Your task to perform on an android device: move a message to another label in the gmail app Image 0: 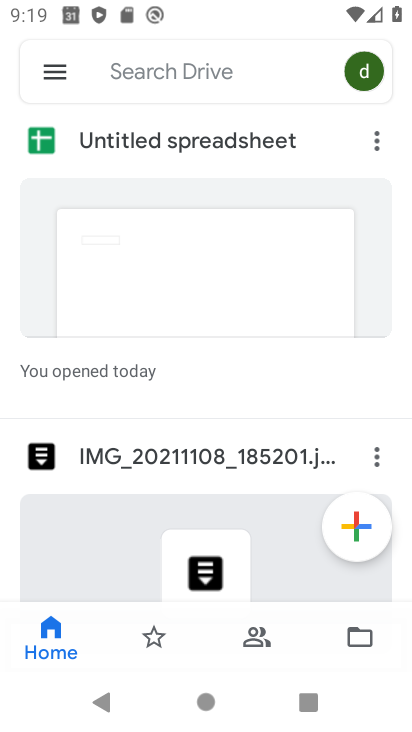
Step 0: press home button
Your task to perform on an android device: move a message to another label in the gmail app Image 1: 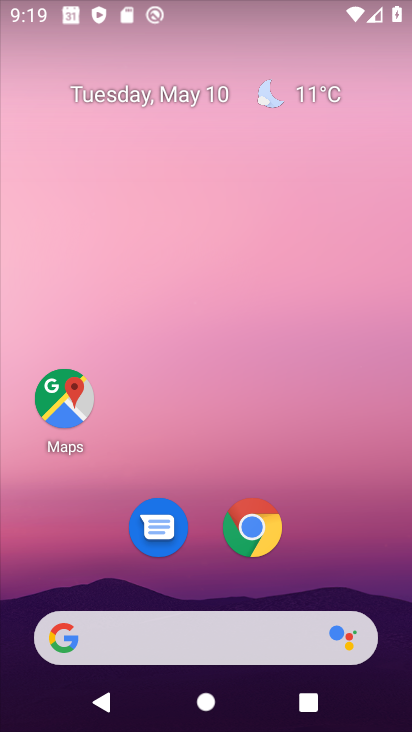
Step 1: drag from (364, 513) to (314, 202)
Your task to perform on an android device: move a message to another label in the gmail app Image 2: 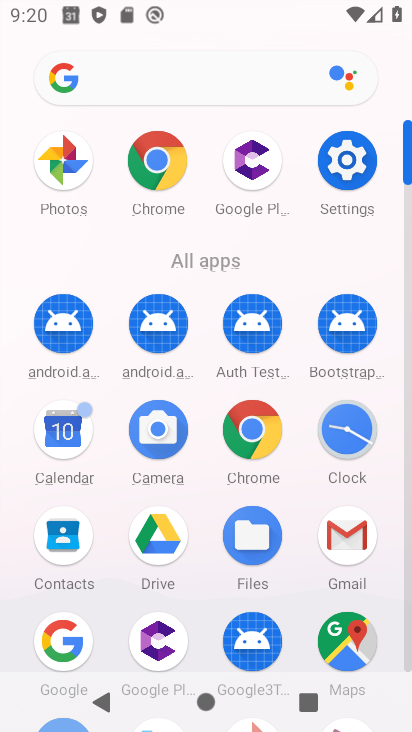
Step 2: click (342, 543)
Your task to perform on an android device: move a message to another label in the gmail app Image 3: 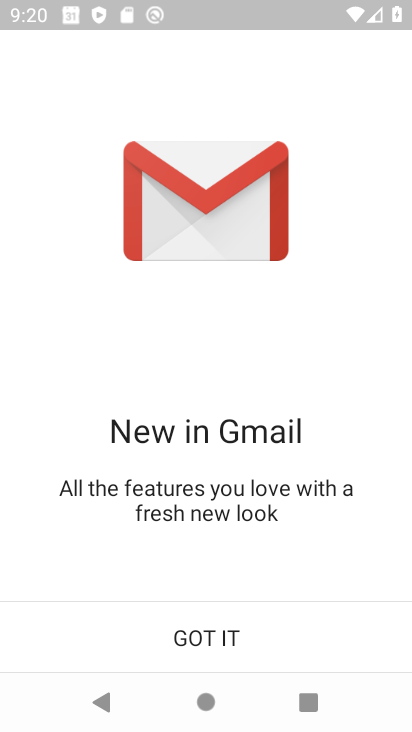
Step 3: click (218, 627)
Your task to perform on an android device: move a message to another label in the gmail app Image 4: 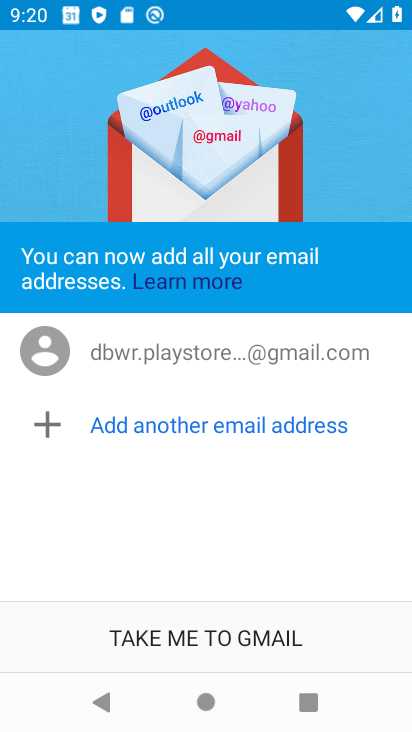
Step 4: click (206, 637)
Your task to perform on an android device: move a message to another label in the gmail app Image 5: 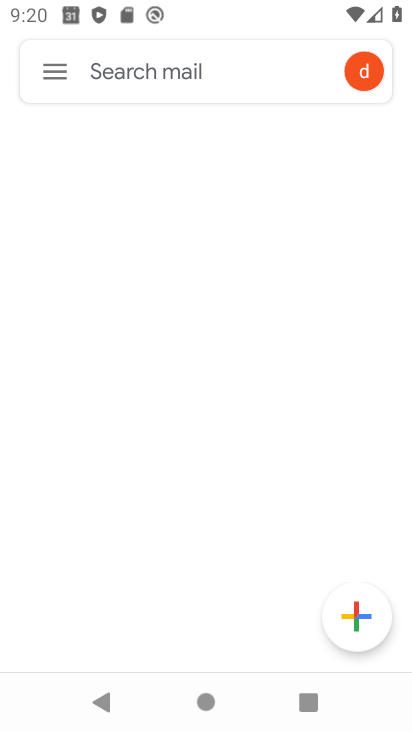
Step 5: click (62, 87)
Your task to perform on an android device: move a message to another label in the gmail app Image 6: 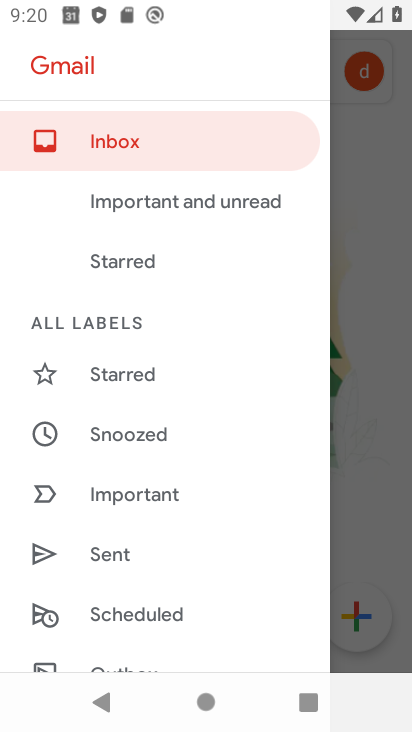
Step 6: drag from (243, 615) to (182, 299)
Your task to perform on an android device: move a message to another label in the gmail app Image 7: 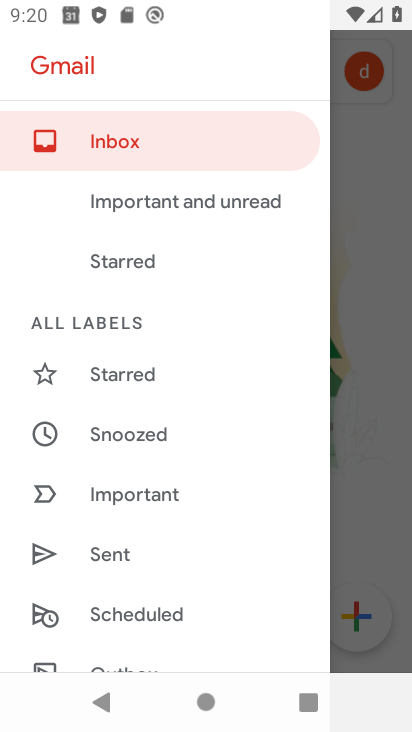
Step 7: drag from (203, 455) to (208, 238)
Your task to perform on an android device: move a message to another label in the gmail app Image 8: 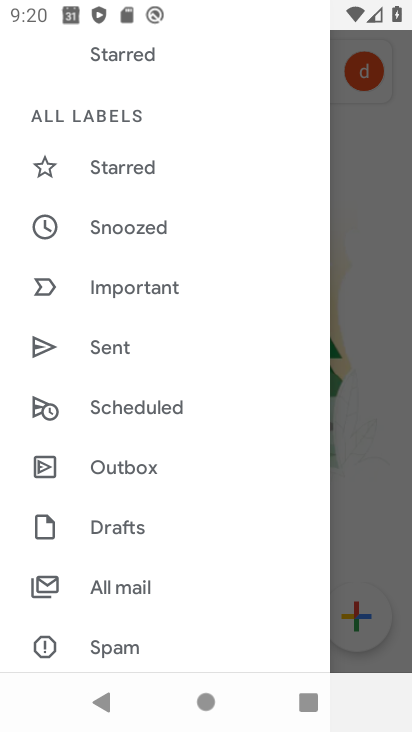
Step 8: click (133, 586)
Your task to perform on an android device: move a message to another label in the gmail app Image 9: 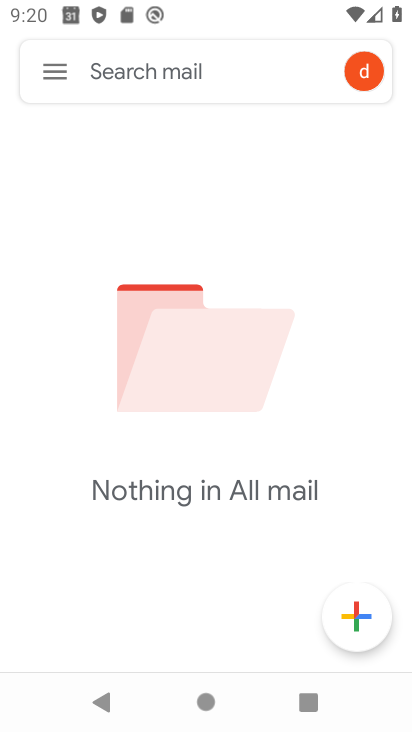
Step 9: task complete